Your task to perform on an android device: Open Chrome and go to settings Image 0: 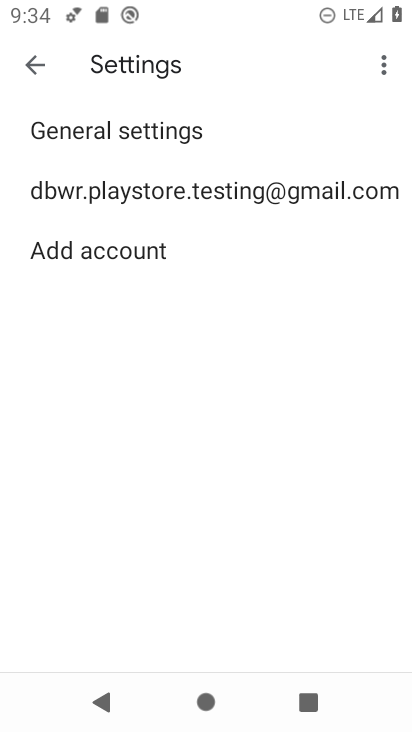
Step 0: press home button
Your task to perform on an android device: Open Chrome and go to settings Image 1: 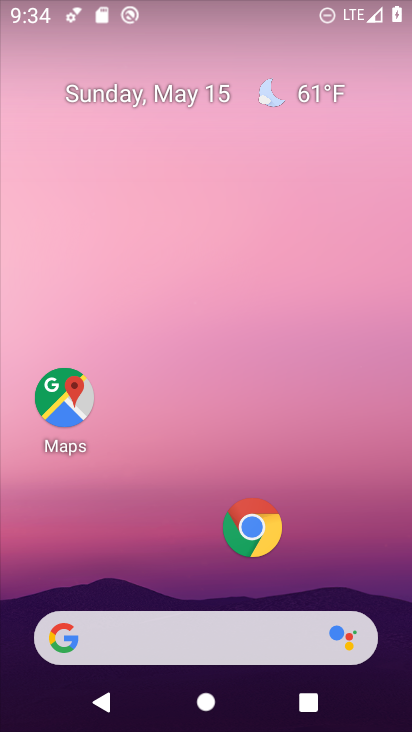
Step 1: click (248, 518)
Your task to perform on an android device: Open Chrome and go to settings Image 2: 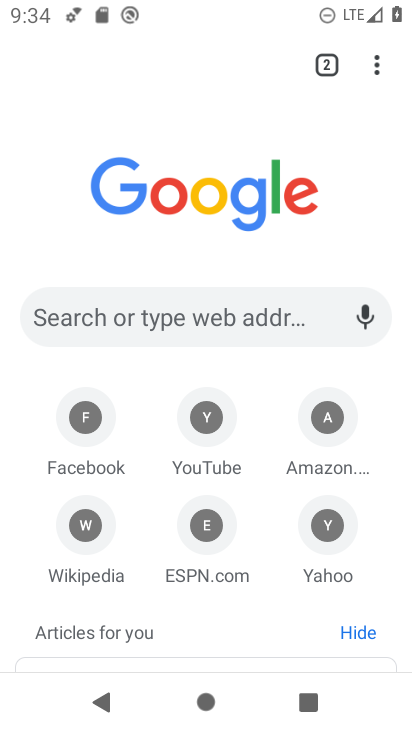
Step 2: click (381, 66)
Your task to perform on an android device: Open Chrome and go to settings Image 3: 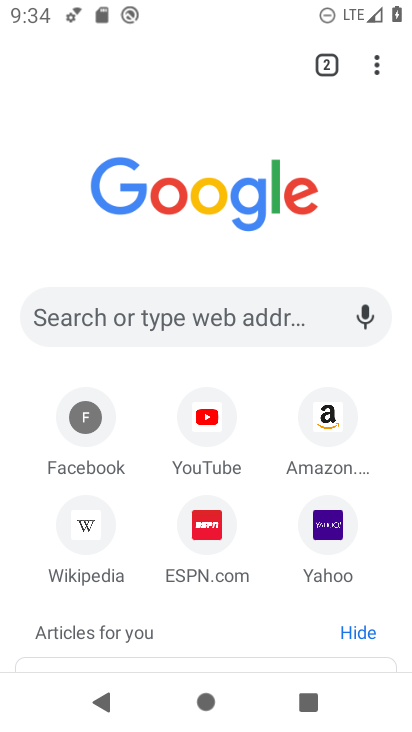
Step 3: click (378, 63)
Your task to perform on an android device: Open Chrome and go to settings Image 4: 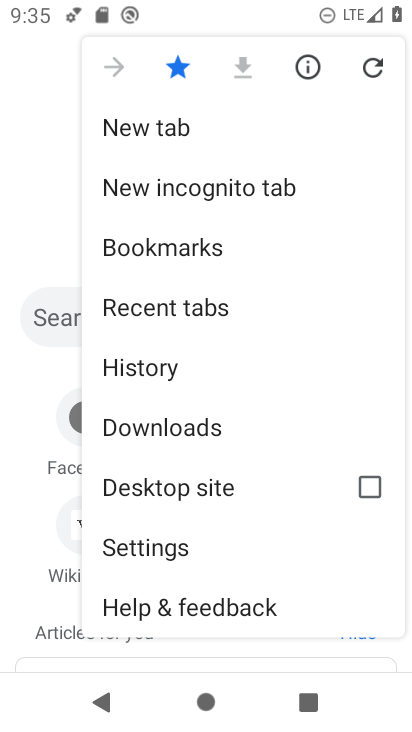
Step 4: click (198, 544)
Your task to perform on an android device: Open Chrome and go to settings Image 5: 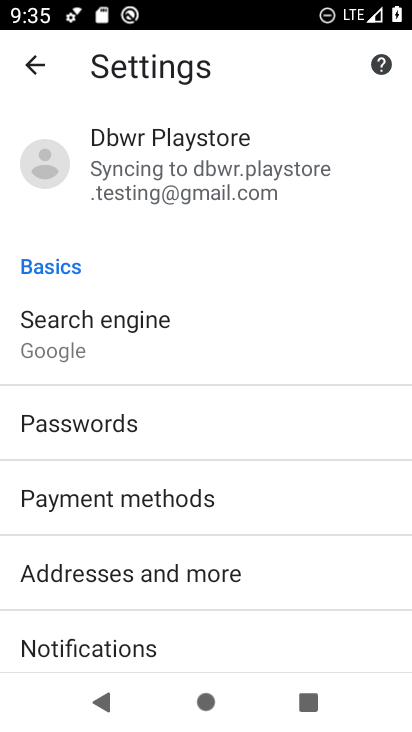
Step 5: task complete